Your task to perform on an android device: Search for 8K TVs on Best Buy. Image 0: 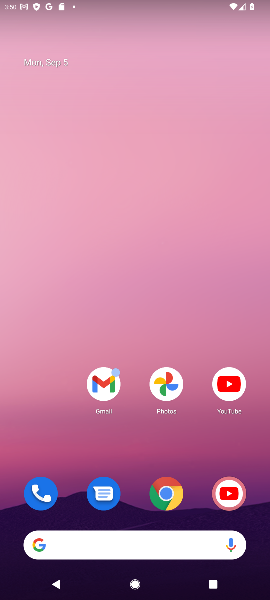
Step 0: drag from (140, 457) to (121, 0)
Your task to perform on an android device: Search for 8K TVs on Best Buy. Image 1: 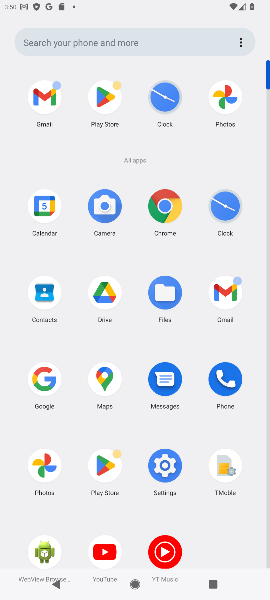
Step 1: click (166, 208)
Your task to perform on an android device: Search for 8K TVs on Best Buy. Image 2: 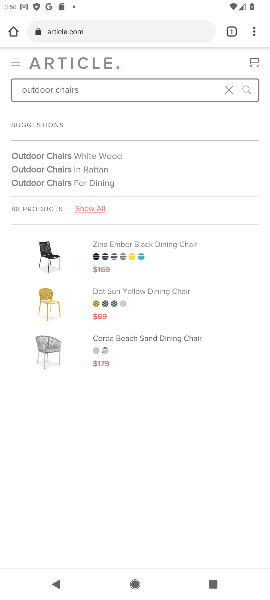
Step 2: click (82, 91)
Your task to perform on an android device: Search for 8K TVs on Best Buy. Image 3: 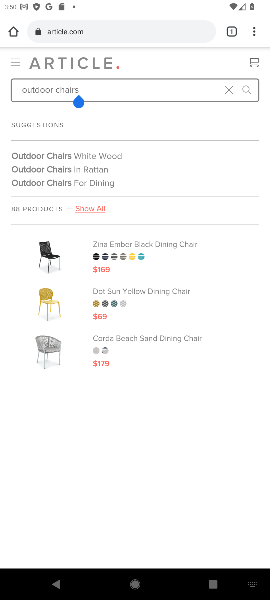
Step 3: click (86, 24)
Your task to perform on an android device: Search for 8K TVs on Best Buy. Image 4: 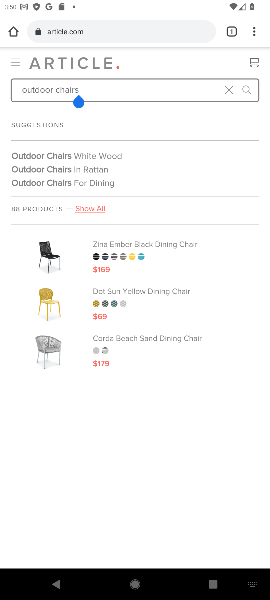
Step 4: click (86, 24)
Your task to perform on an android device: Search for 8K TVs on Best Buy. Image 5: 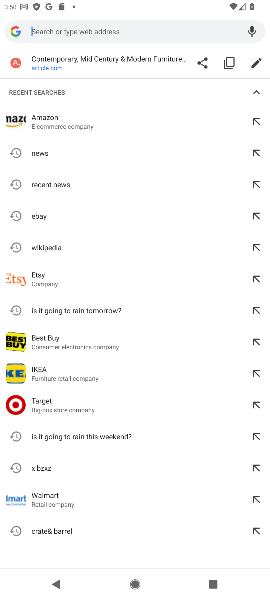
Step 5: type "Best Buy."
Your task to perform on an android device: Search for 8K TVs on Best Buy. Image 6: 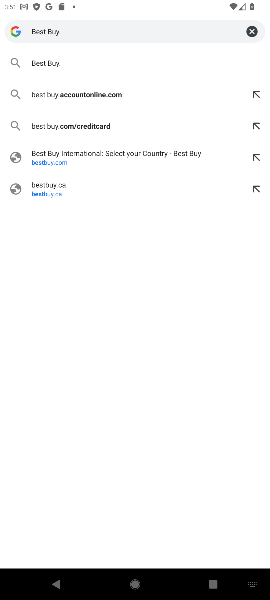
Step 6: click (48, 65)
Your task to perform on an android device: Search for 8K TVs on Best Buy. Image 7: 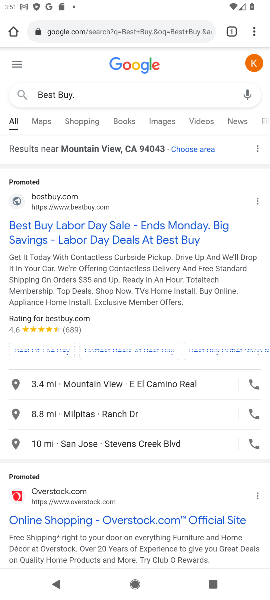
Step 7: click (113, 220)
Your task to perform on an android device: Search for 8K TVs on Best Buy. Image 8: 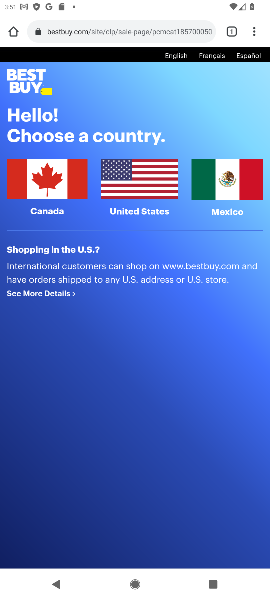
Step 8: task complete